Your task to perform on an android device: Open Google Image 0: 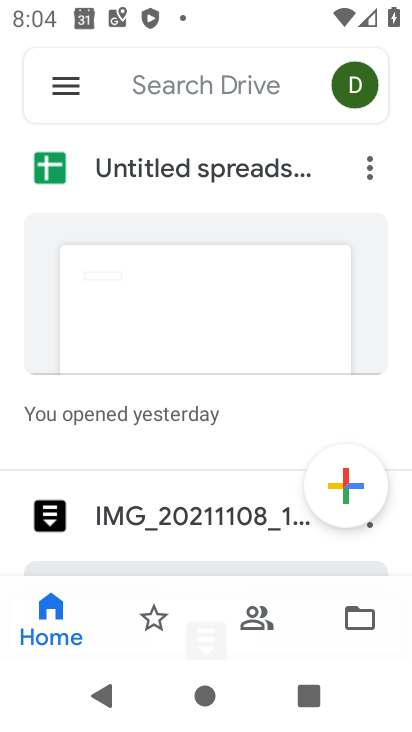
Step 0: press home button
Your task to perform on an android device: Open Google Image 1: 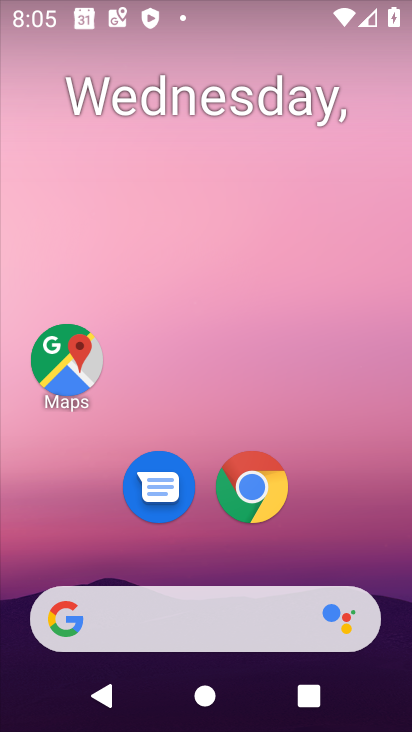
Step 1: drag from (374, 557) to (355, 155)
Your task to perform on an android device: Open Google Image 2: 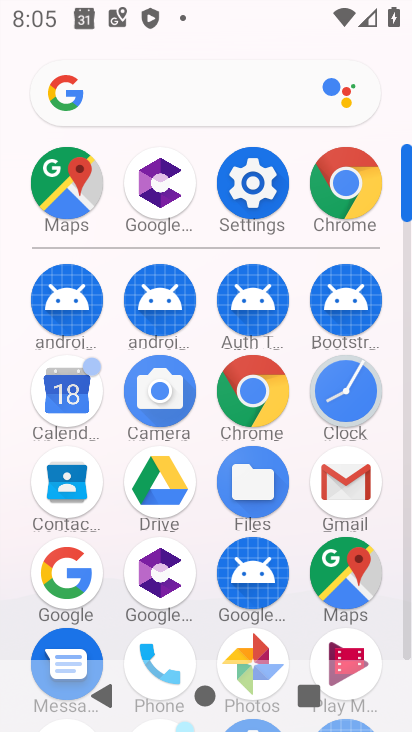
Step 2: click (75, 583)
Your task to perform on an android device: Open Google Image 3: 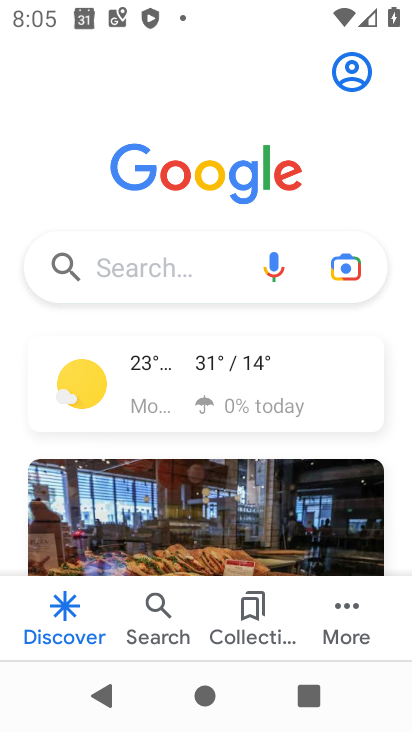
Step 3: task complete